Your task to perform on an android device: find photos in the google photos app Image 0: 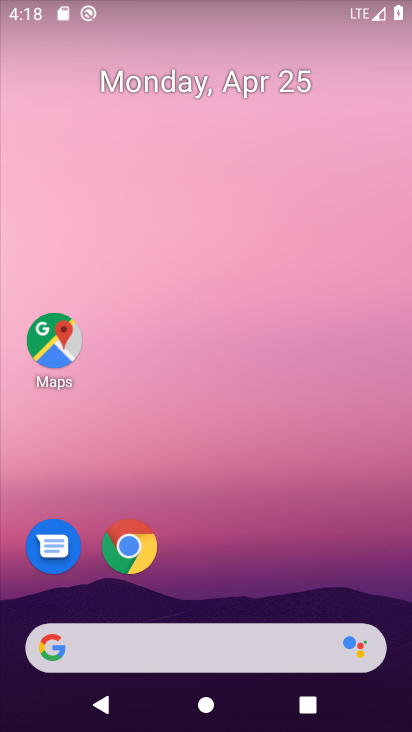
Step 0: drag from (261, 577) to (315, 53)
Your task to perform on an android device: find photos in the google photos app Image 1: 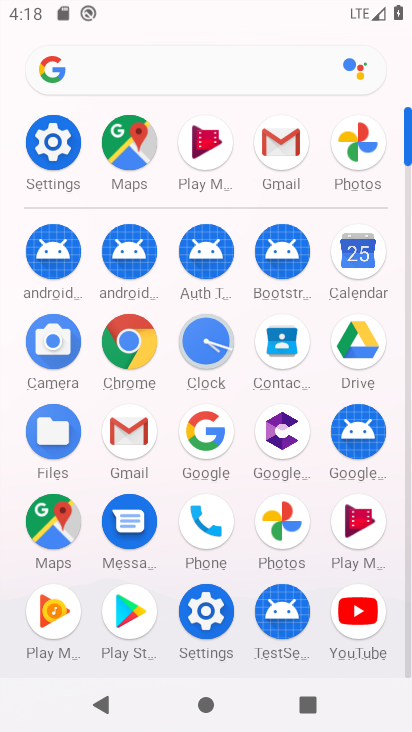
Step 1: click (346, 167)
Your task to perform on an android device: find photos in the google photos app Image 2: 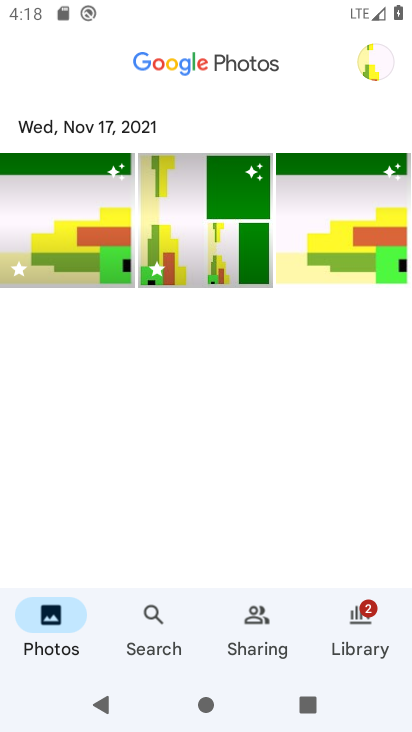
Step 2: task complete